Your task to perform on an android device: allow notifications from all sites in the chrome app Image 0: 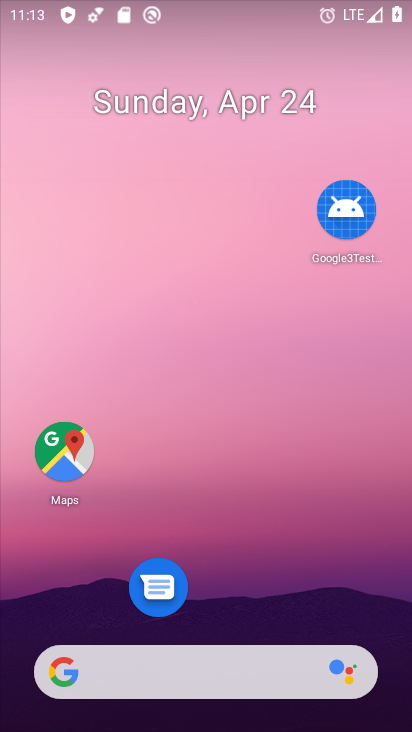
Step 0: drag from (353, 609) to (291, 128)
Your task to perform on an android device: allow notifications from all sites in the chrome app Image 1: 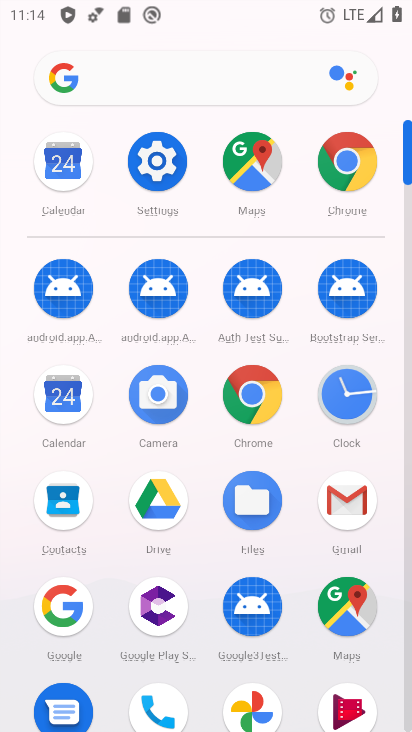
Step 1: click (340, 177)
Your task to perform on an android device: allow notifications from all sites in the chrome app Image 2: 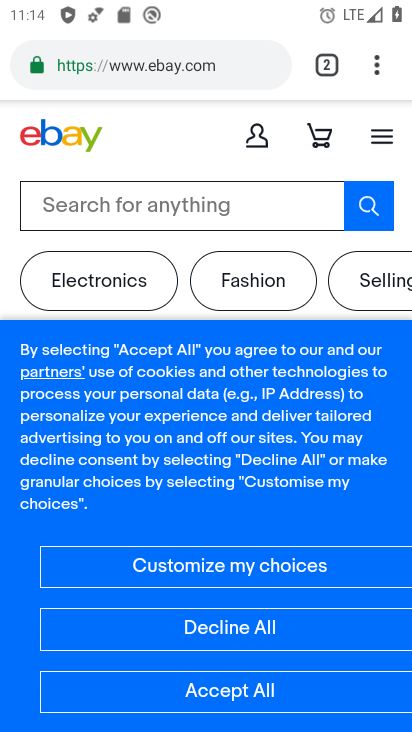
Step 2: click (384, 76)
Your task to perform on an android device: allow notifications from all sites in the chrome app Image 3: 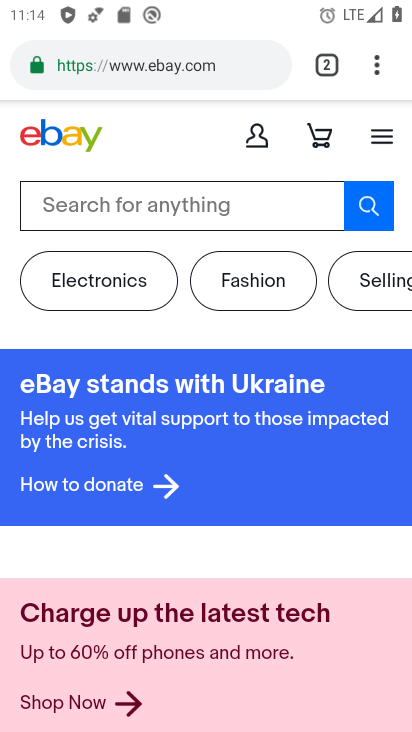
Step 3: click (382, 77)
Your task to perform on an android device: allow notifications from all sites in the chrome app Image 4: 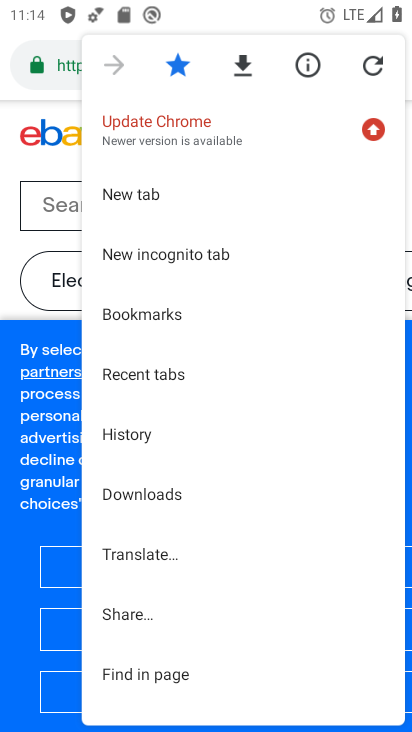
Step 4: drag from (208, 658) to (225, 287)
Your task to perform on an android device: allow notifications from all sites in the chrome app Image 5: 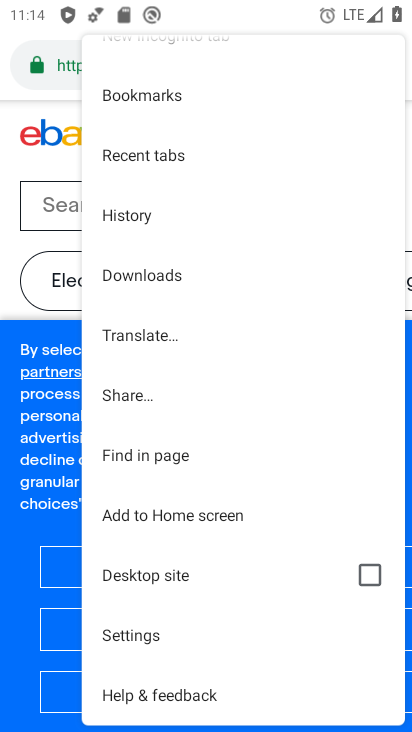
Step 5: click (167, 636)
Your task to perform on an android device: allow notifications from all sites in the chrome app Image 6: 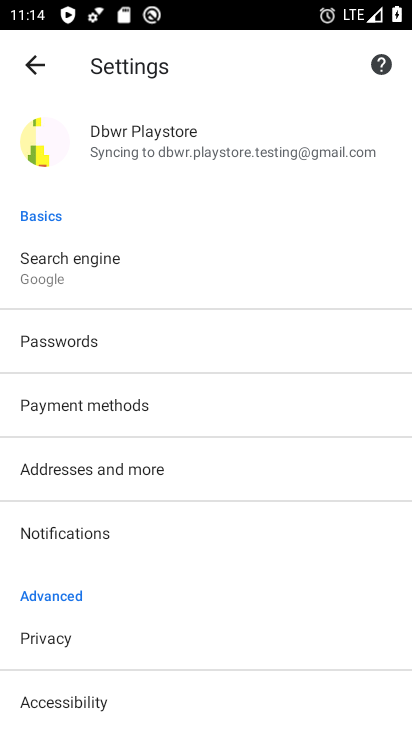
Step 6: drag from (202, 674) to (250, 342)
Your task to perform on an android device: allow notifications from all sites in the chrome app Image 7: 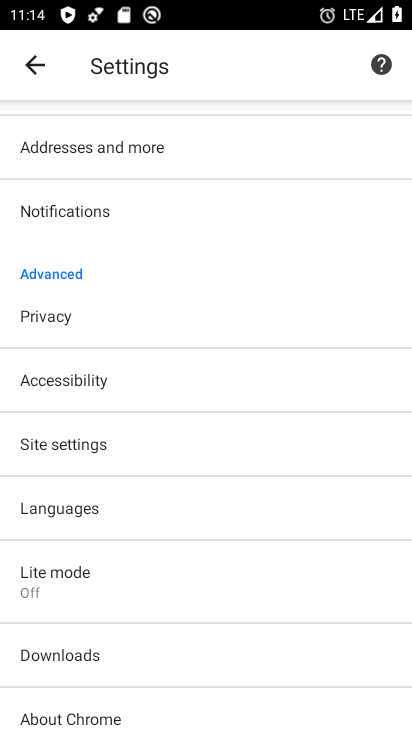
Step 7: click (130, 445)
Your task to perform on an android device: allow notifications from all sites in the chrome app Image 8: 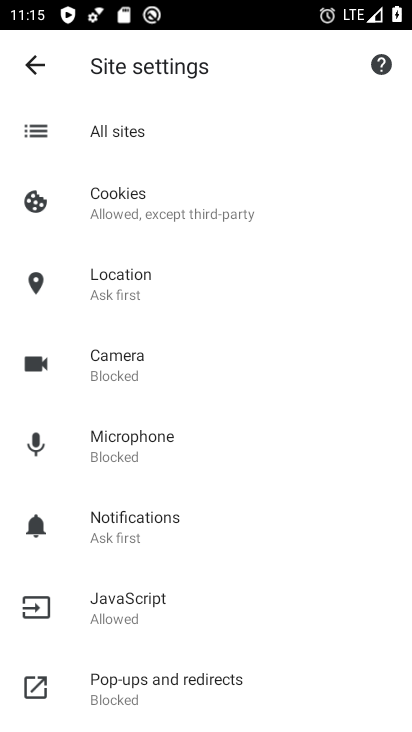
Step 8: click (172, 141)
Your task to perform on an android device: allow notifications from all sites in the chrome app Image 9: 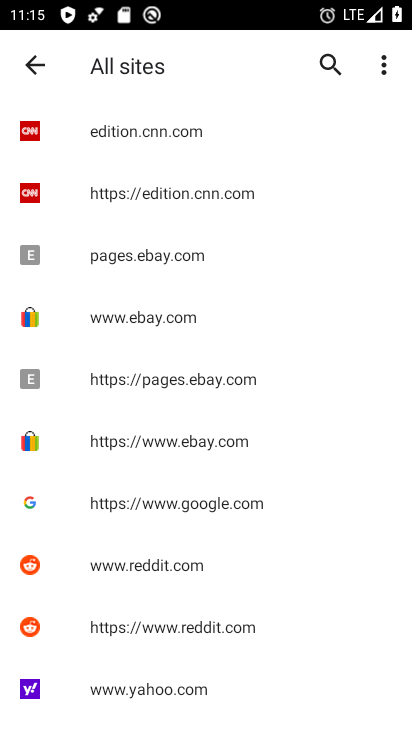
Step 9: task complete